Your task to perform on an android device: View the shopping cart on walmart.com. Search for "logitech g pro" on walmart.com, select the first entry, and add it to the cart. Image 0: 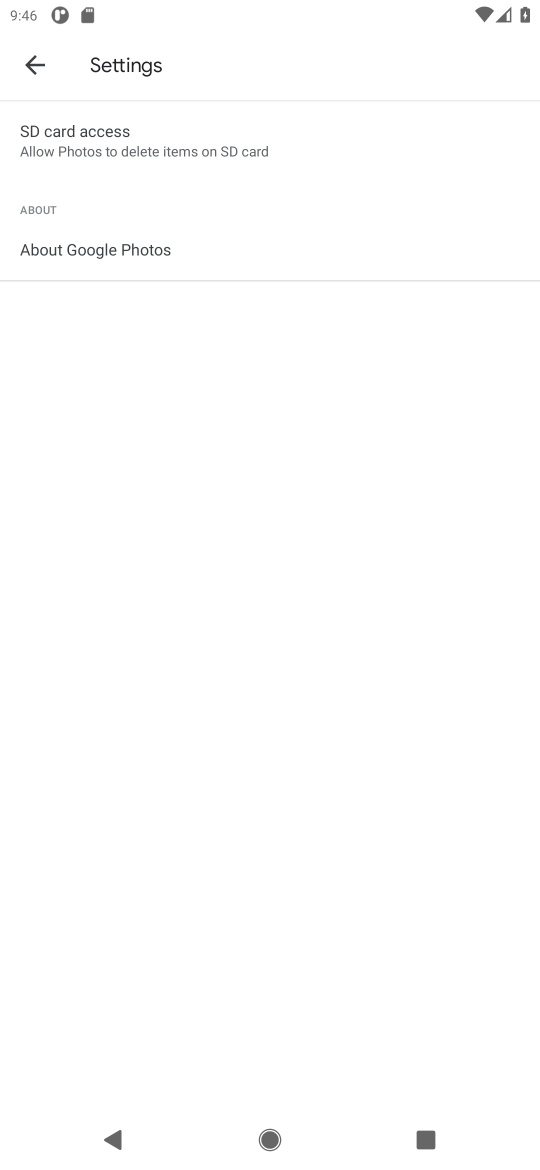
Step 0: press home button
Your task to perform on an android device: View the shopping cart on walmart.com. Search for "logitech g pro" on walmart.com, select the first entry, and add it to the cart. Image 1: 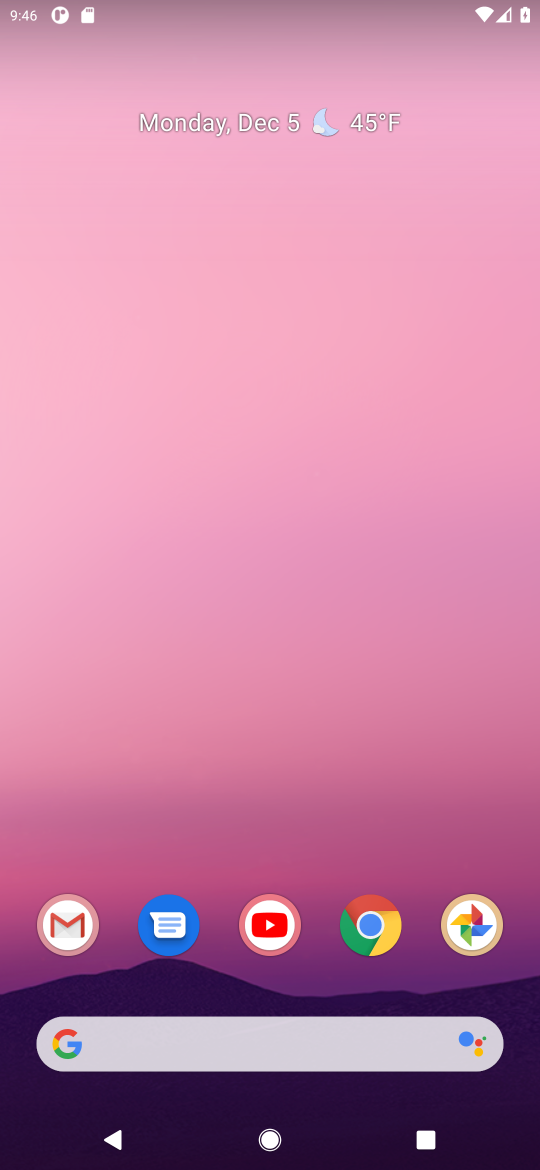
Step 1: click (378, 936)
Your task to perform on an android device: View the shopping cart on walmart.com. Search for "logitech g pro" on walmart.com, select the first entry, and add it to the cart. Image 2: 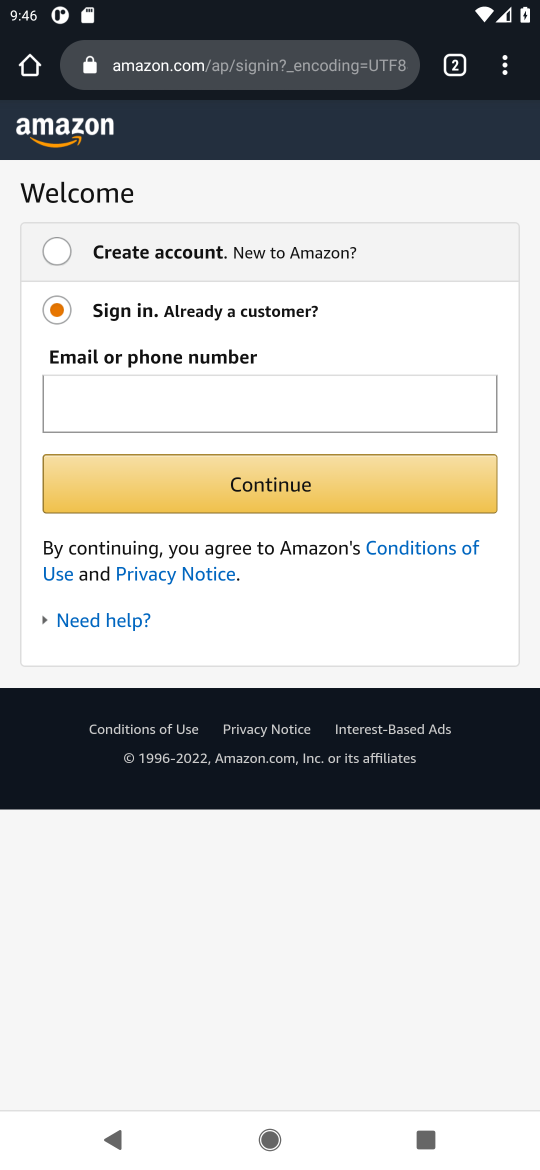
Step 2: click (236, 83)
Your task to perform on an android device: View the shopping cart on walmart.com. Search for "logitech g pro" on walmart.com, select the first entry, and add it to the cart. Image 3: 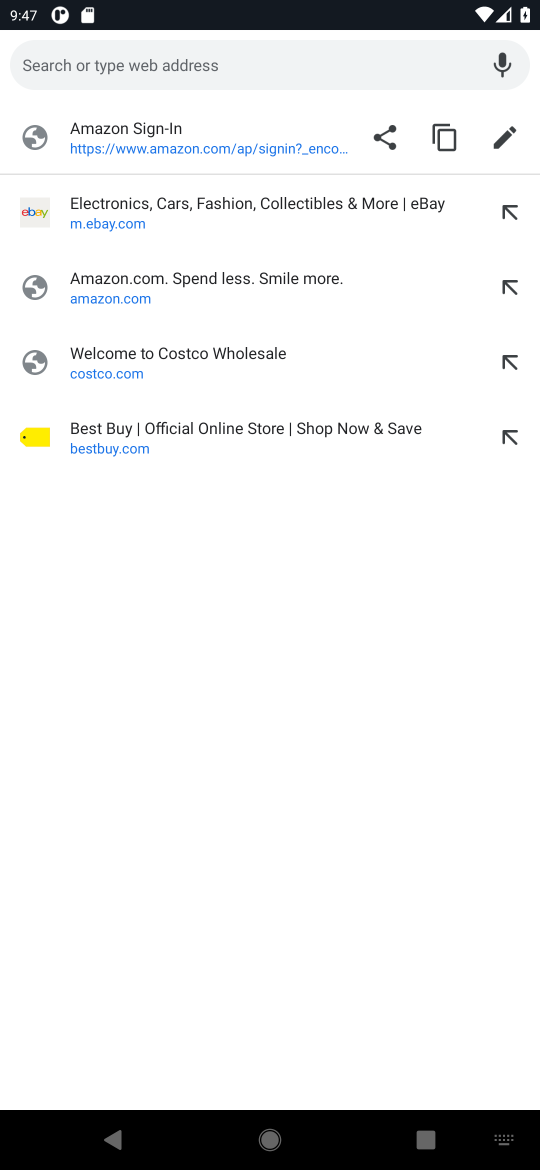
Step 3: type "walmart.com"
Your task to perform on an android device: View the shopping cart on walmart.com. Search for "logitech g pro" on walmart.com, select the first entry, and add it to the cart. Image 4: 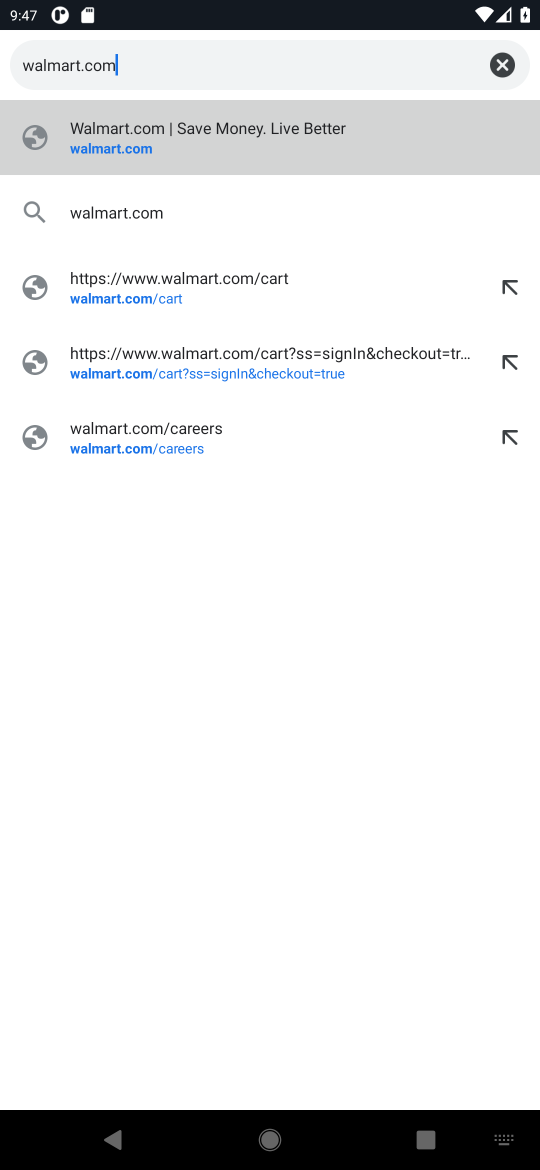
Step 4: click (119, 158)
Your task to perform on an android device: View the shopping cart on walmart.com. Search for "logitech g pro" on walmart.com, select the first entry, and add it to the cart. Image 5: 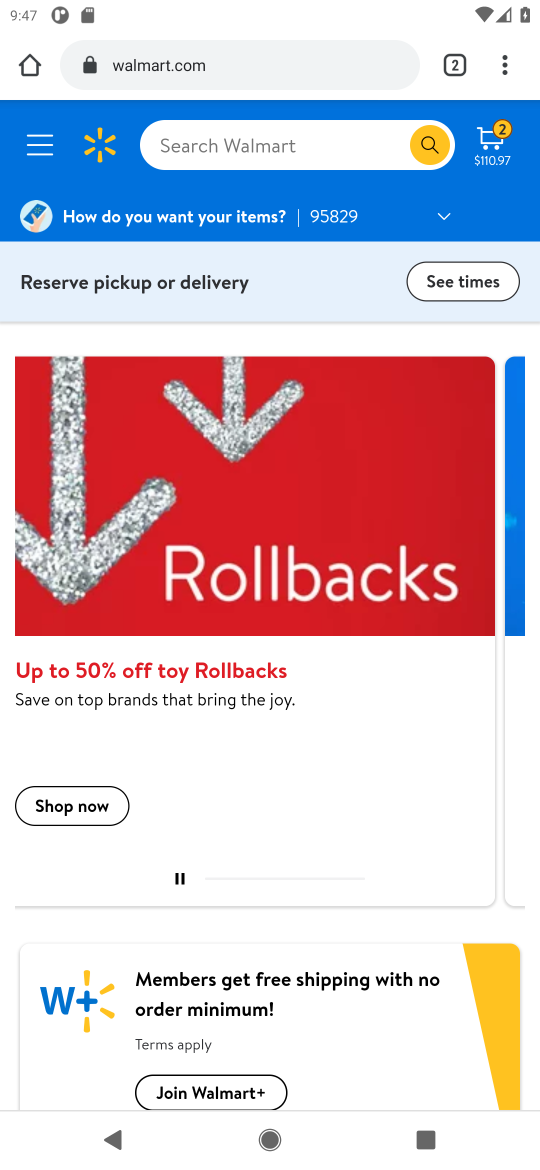
Step 5: click (486, 140)
Your task to perform on an android device: View the shopping cart on walmart.com. Search for "logitech g pro" on walmart.com, select the first entry, and add it to the cart. Image 6: 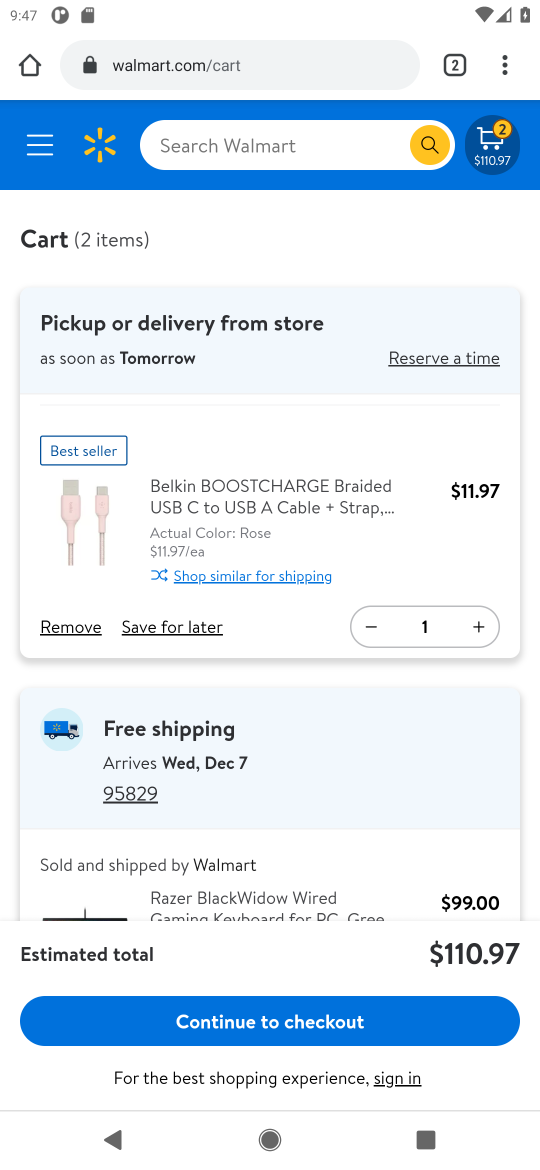
Step 6: click (213, 136)
Your task to perform on an android device: View the shopping cart on walmart.com. Search for "logitech g pro" on walmart.com, select the first entry, and add it to the cart. Image 7: 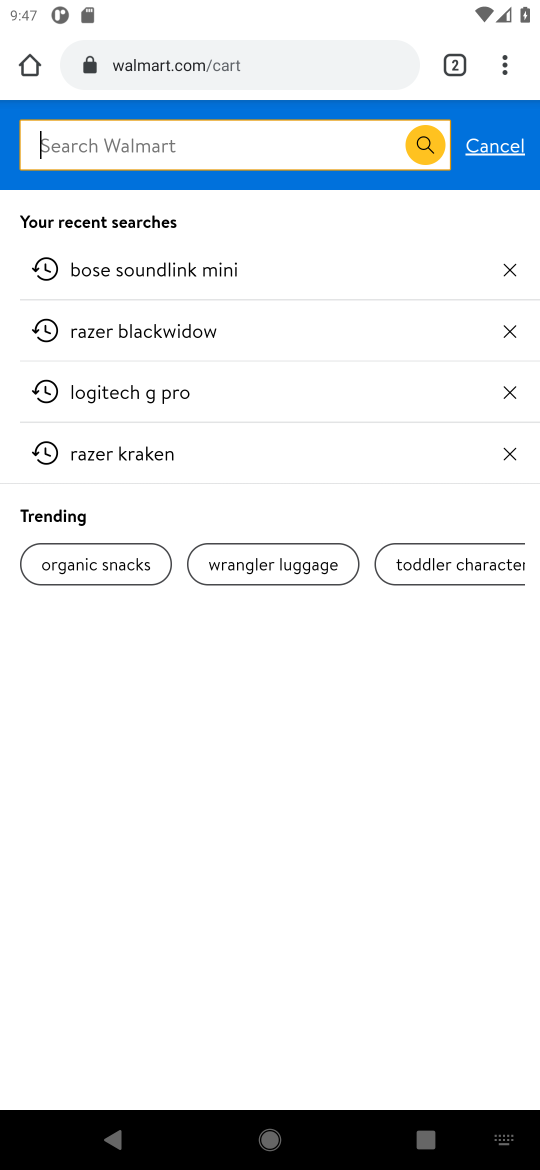
Step 7: type "logitech g pro"
Your task to perform on an android device: View the shopping cart on walmart.com. Search for "logitech g pro" on walmart.com, select the first entry, and add it to the cart. Image 8: 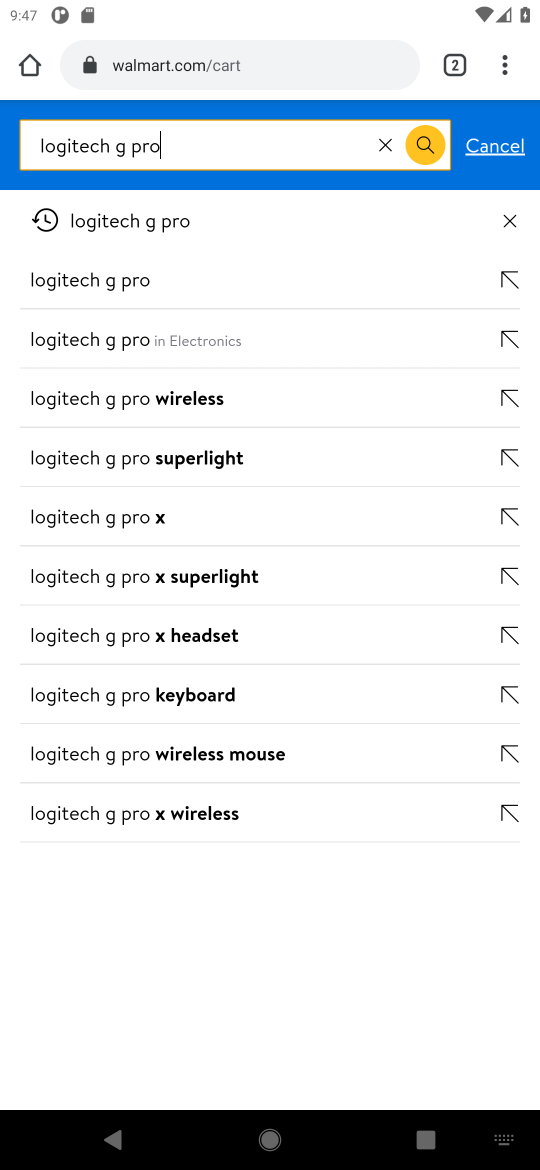
Step 8: click (133, 215)
Your task to perform on an android device: View the shopping cart on walmart.com. Search for "logitech g pro" on walmart.com, select the first entry, and add it to the cart. Image 9: 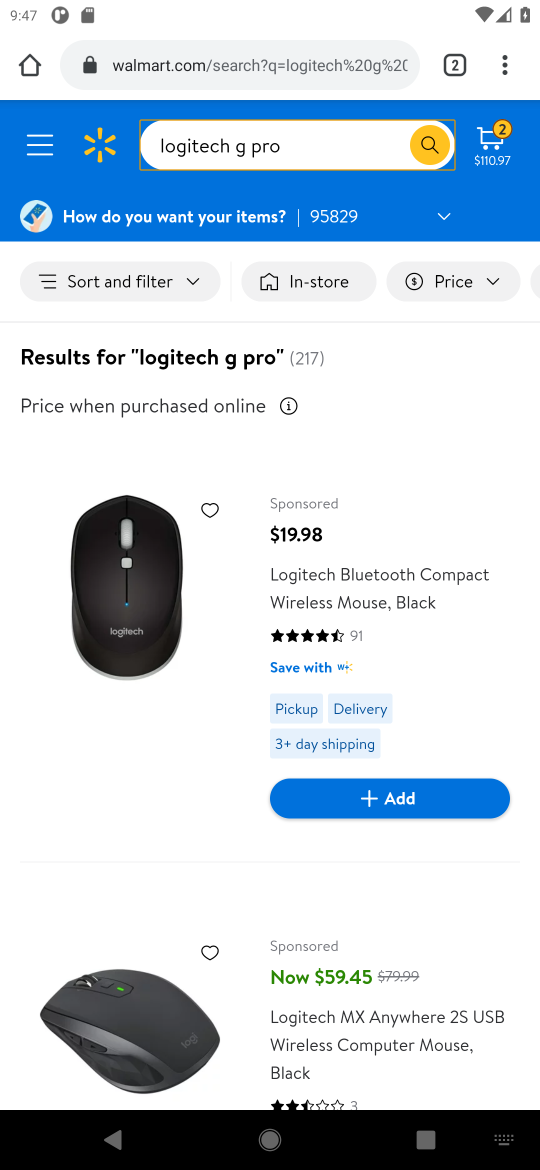
Step 9: task complete